Your task to perform on an android device: turn on notifications settings in the gmail app Image 0: 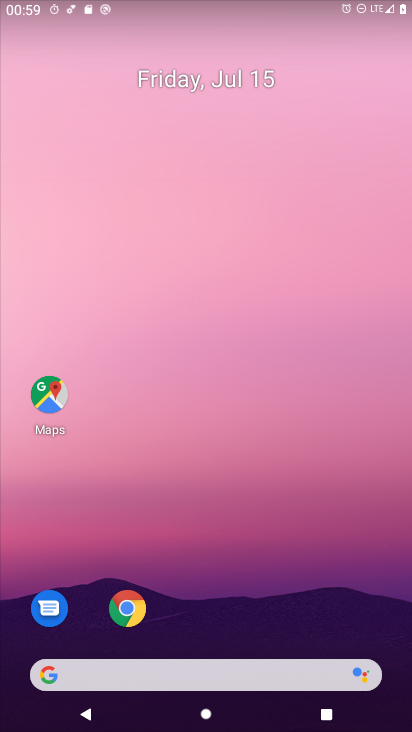
Step 0: drag from (225, 502) to (225, 3)
Your task to perform on an android device: turn on notifications settings in the gmail app Image 1: 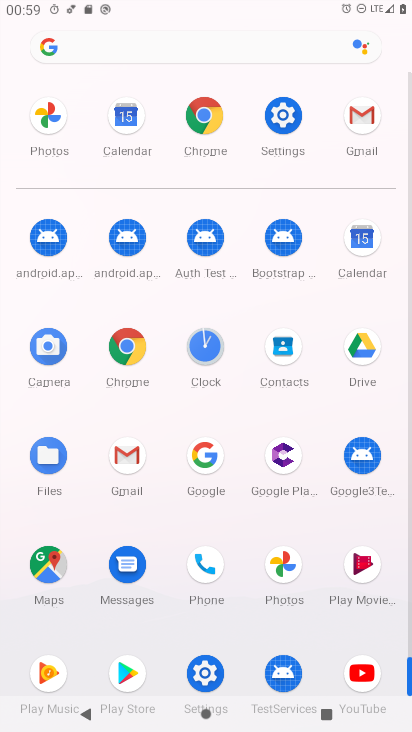
Step 1: click (360, 111)
Your task to perform on an android device: turn on notifications settings in the gmail app Image 2: 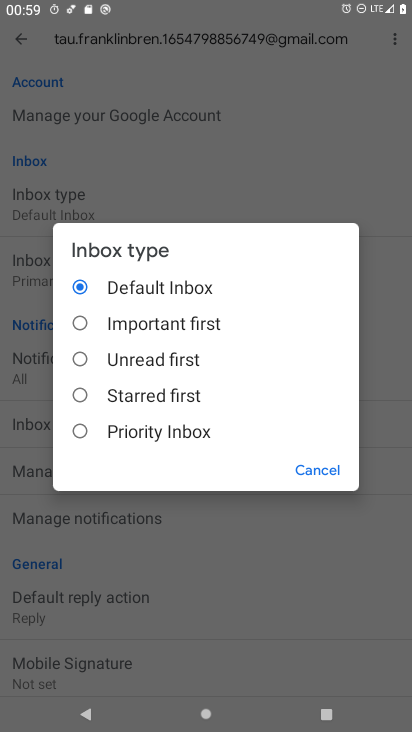
Step 2: click (308, 464)
Your task to perform on an android device: turn on notifications settings in the gmail app Image 3: 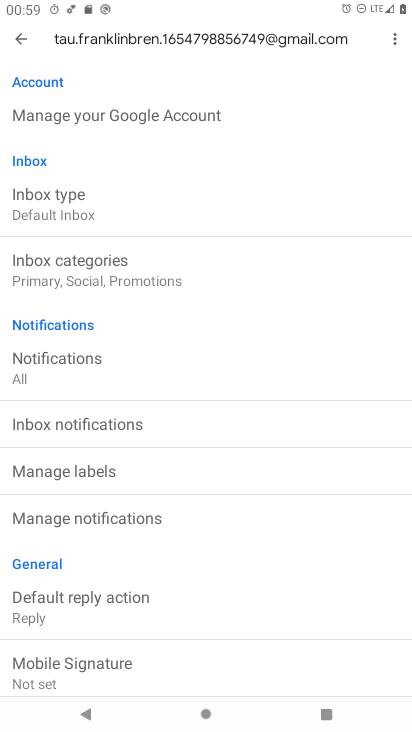
Step 3: click (123, 512)
Your task to perform on an android device: turn on notifications settings in the gmail app Image 4: 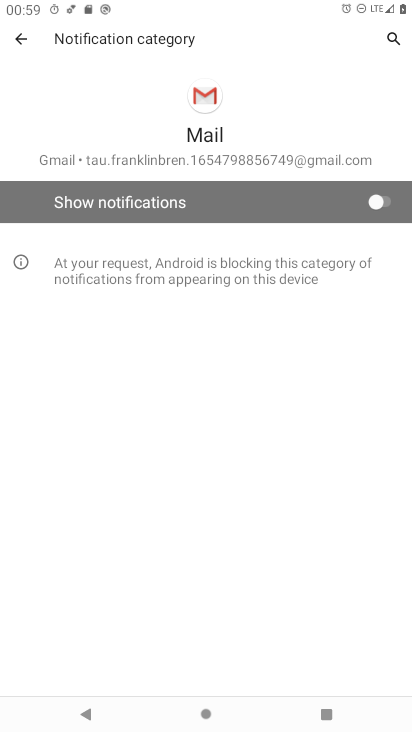
Step 4: click (381, 210)
Your task to perform on an android device: turn on notifications settings in the gmail app Image 5: 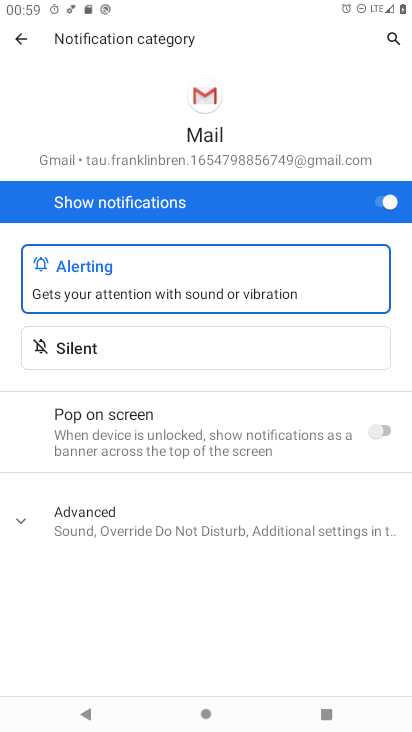
Step 5: task complete